Your task to perform on an android device: check data usage Image 0: 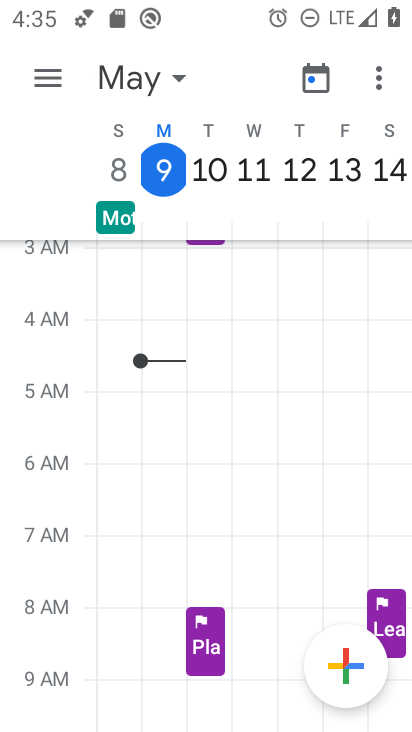
Step 0: press home button
Your task to perform on an android device: check data usage Image 1: 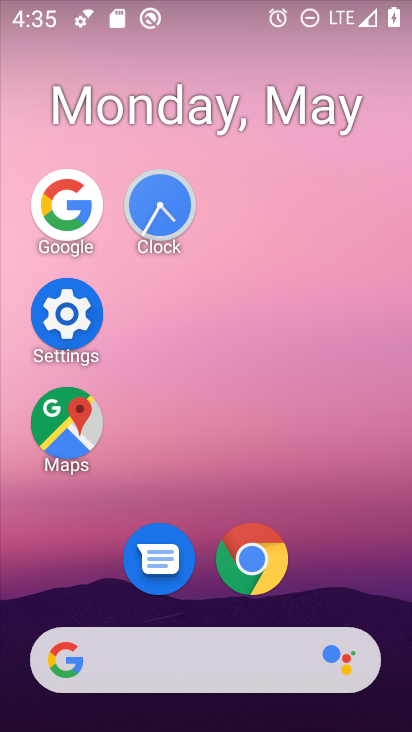
Step 1: click (49, 333)
Your task to perform on an android device: check data usage Image 2: 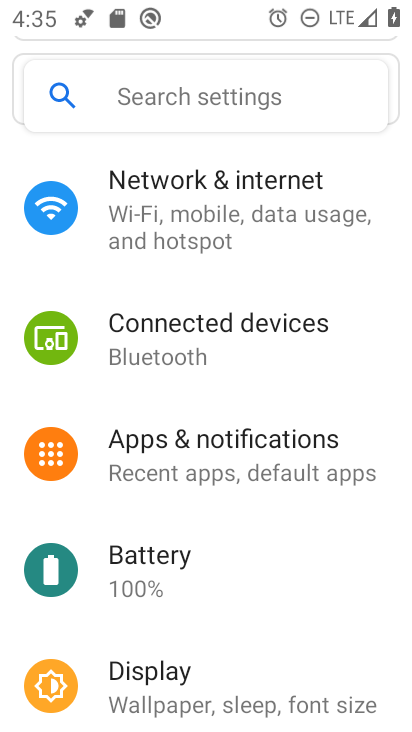
Step 2: click (282, 177)
Your task to perform on an android device: check data usage Image 3: 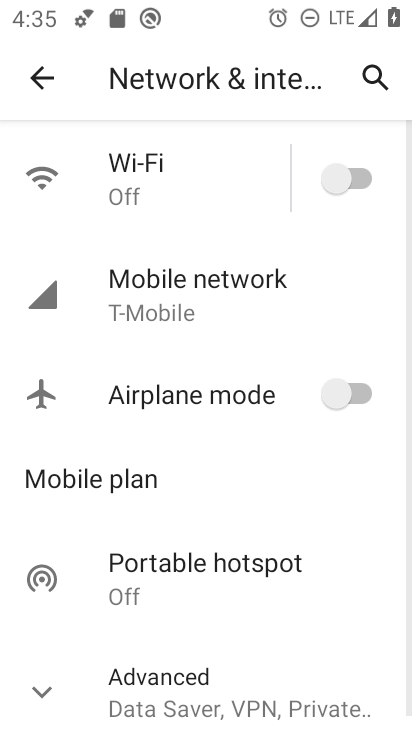
Step 3: click (213, 317)
Your task to perform on an android device: check data usage Image 4: 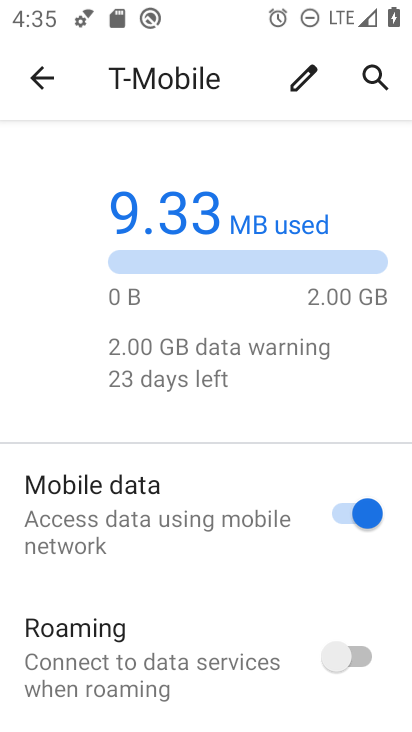
Step 4: task complete